Your task to perform on an android device: Search for vegetarian restaurants on Maps Image 0: 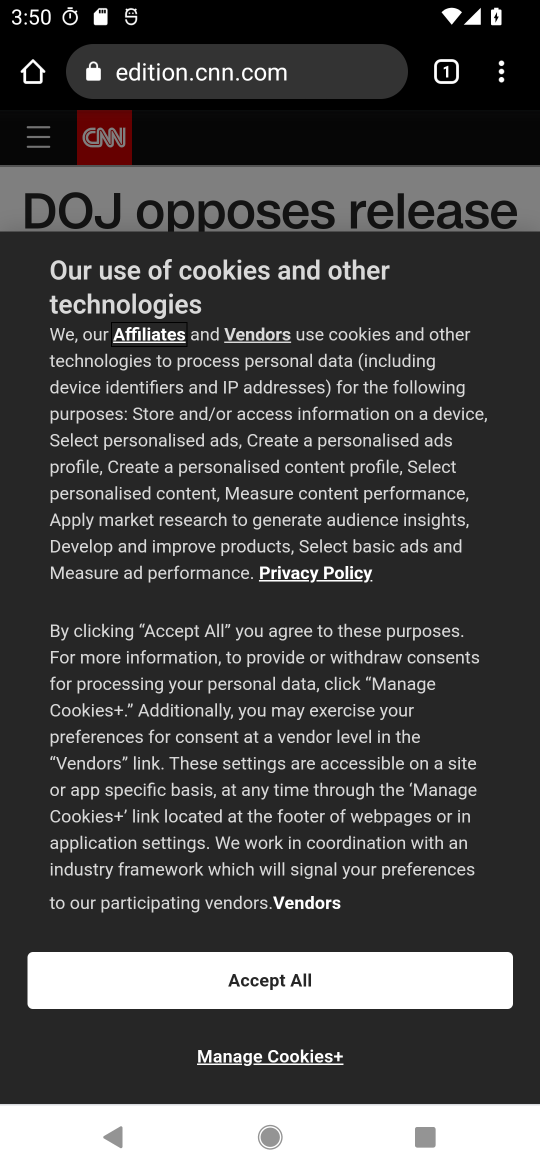
Step 0: press home button
Your task to perform on an android device: Search for vegetarian restaurants on Maps Image 1: 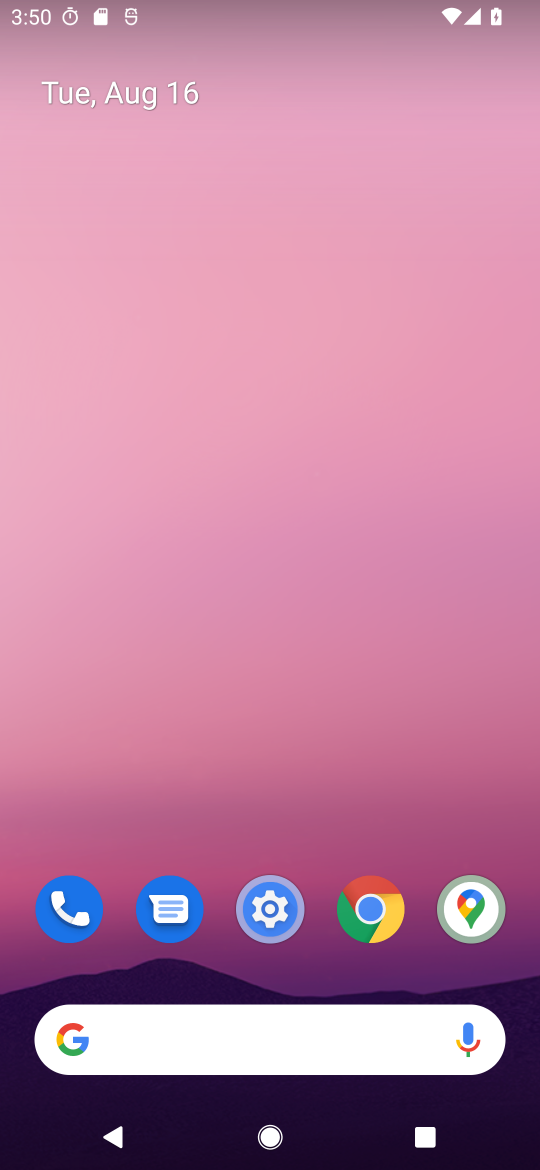
Step 1: click (468, 916)
Your task to perform on an android device: Search for vegetarian restaurants on Maps Image 2: 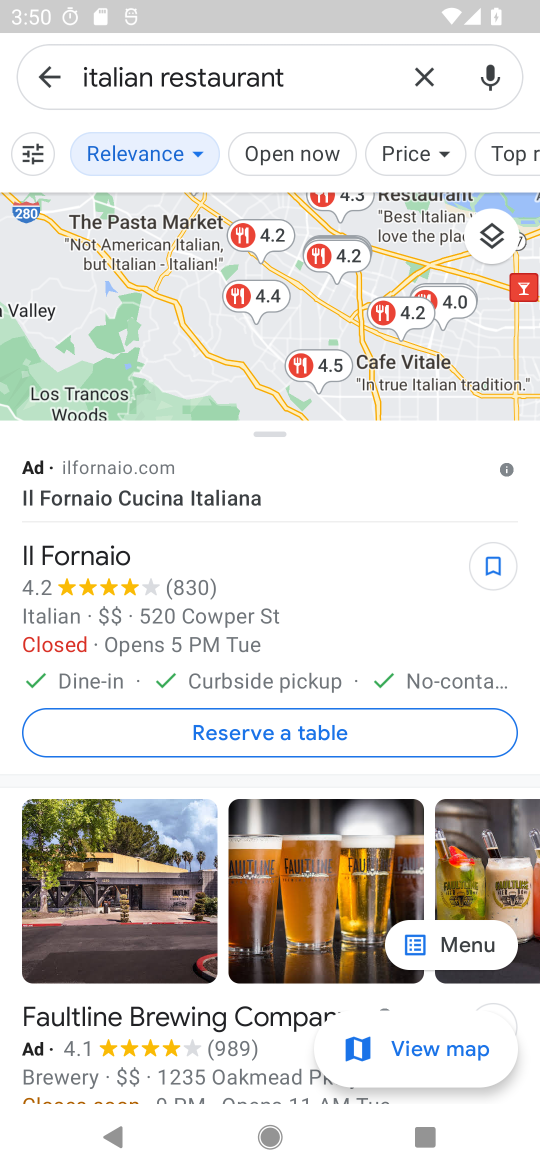
Step 2: click (42, 65)
Your task to perform on an android device: Search for vegetarian restaurants on Maps Image 3: 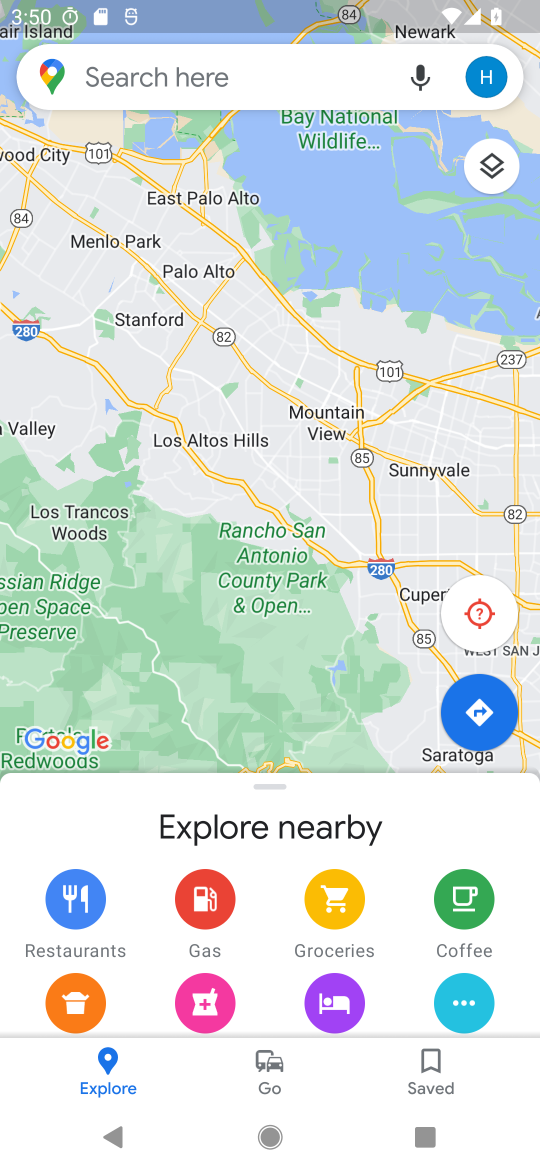
Step 3: click (137, 73)
Your task to perform on an android device: Search for vegetarian restaurants on Maps Image 4: 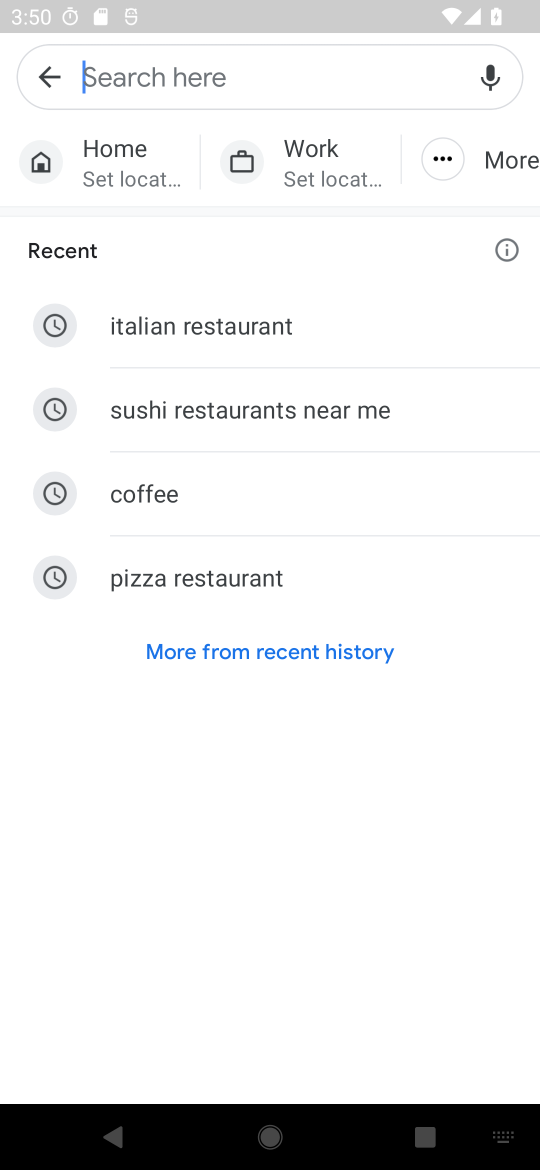
Step 4: type "vegetarian restaurants "
Your task to perform on an android device: Search for vegetarian restaurants on Maps Image 5: 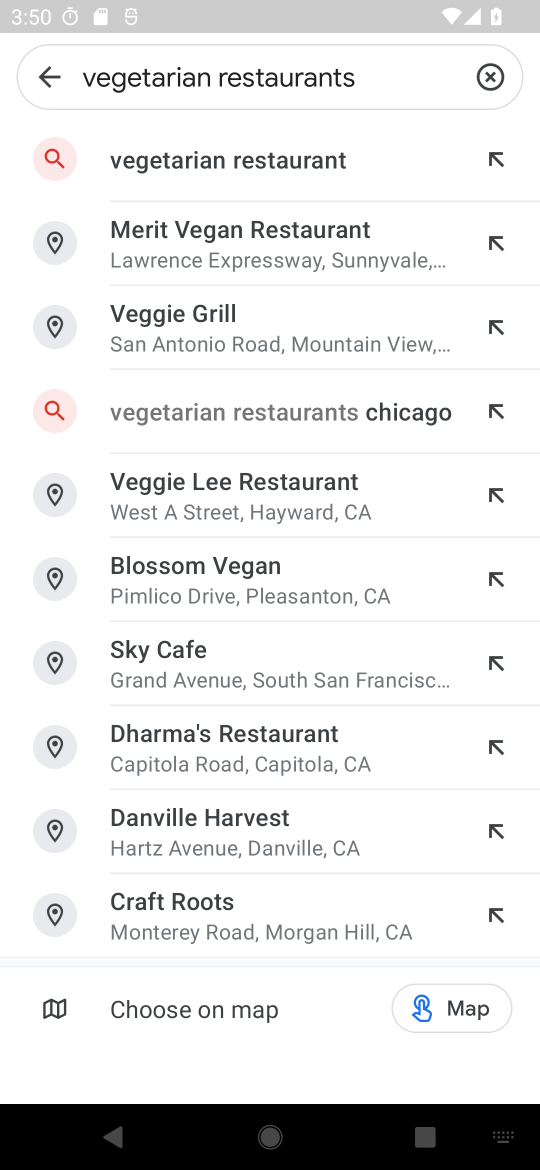
Step 5: click (311, 155)
Your task to perform on an android device: Search for vegetarian restaurants on Maps Image 6: 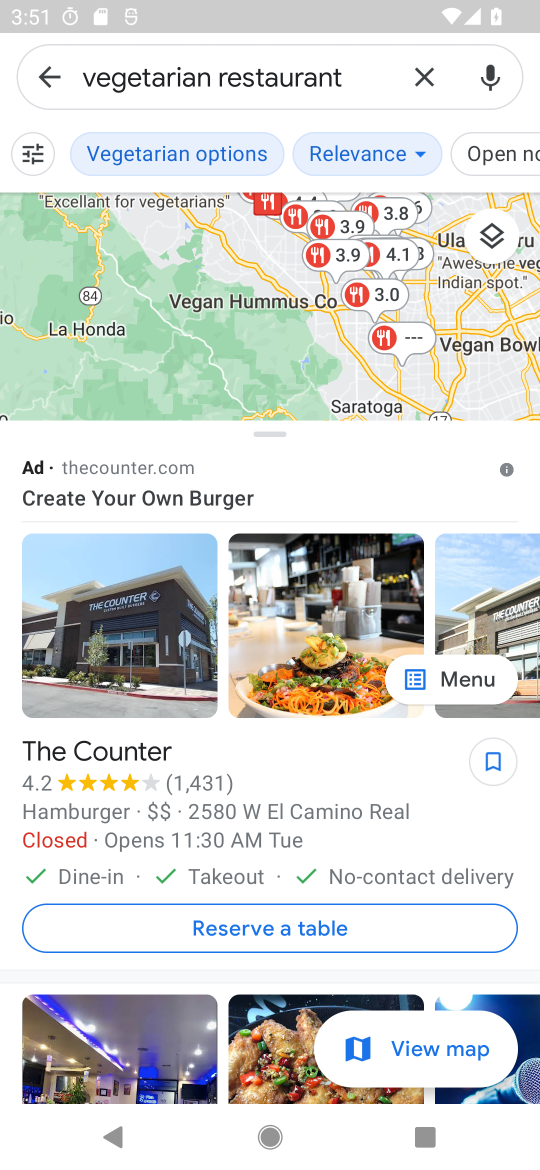
Step 6: task complete